Your task to perform on an android device: Open the map Image 0: 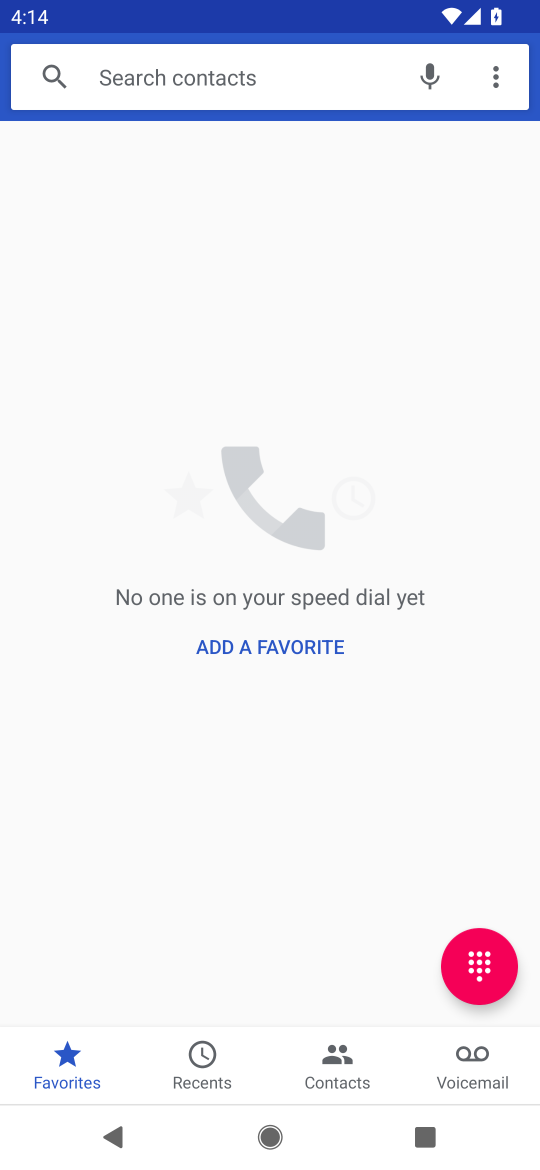
Step 0: press home button
Your task to perform on an android device: Open the map Image 1: 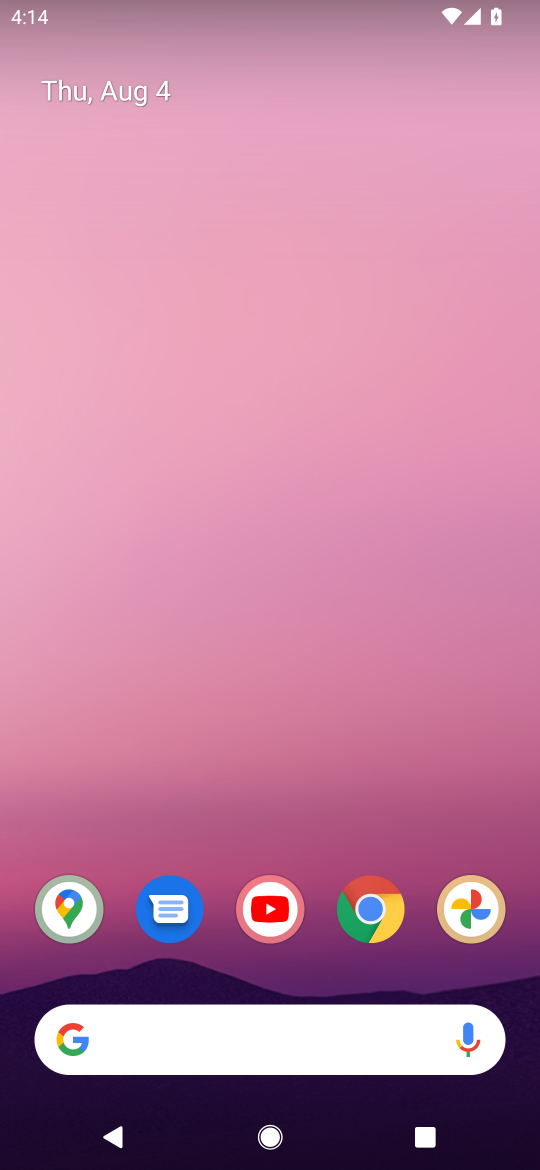
Step 1: drag from (424, 332) to (438, 37)
Your task to perform on an android device: Open the map Image 2: 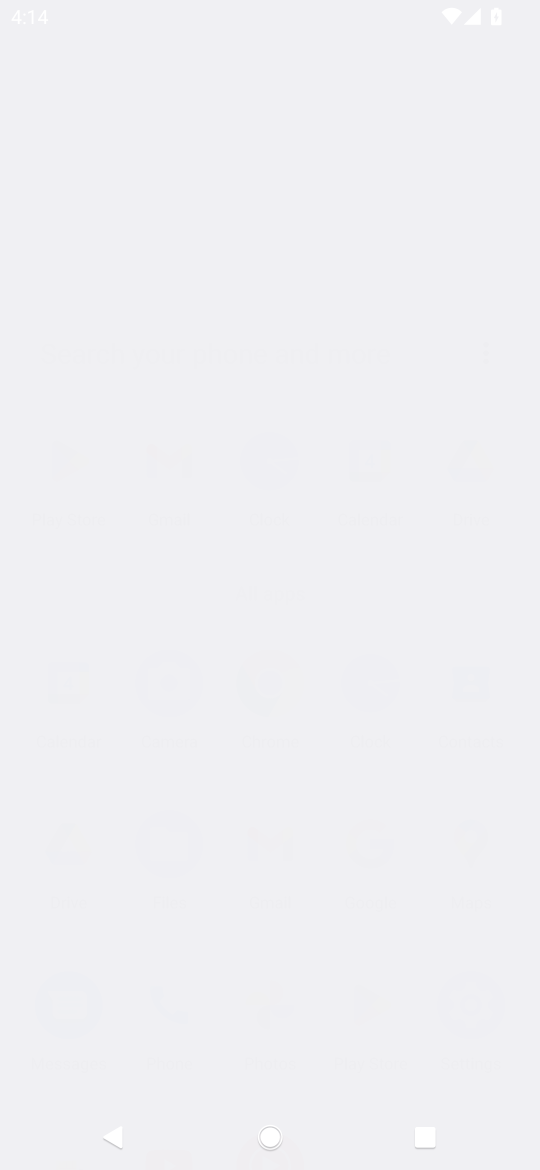
Step 2: press home button
Your task to perform on an android device: Open the map Image 3: 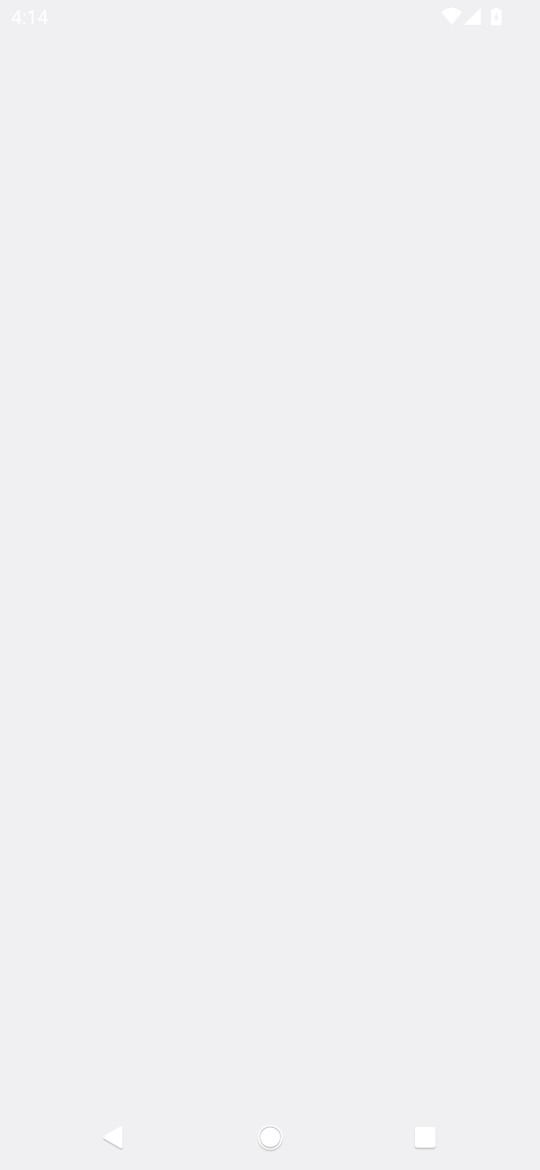
Step 3: drag from (438, 37) to (501, 645)
Your task to perform on an android device: Open the map Image 4: 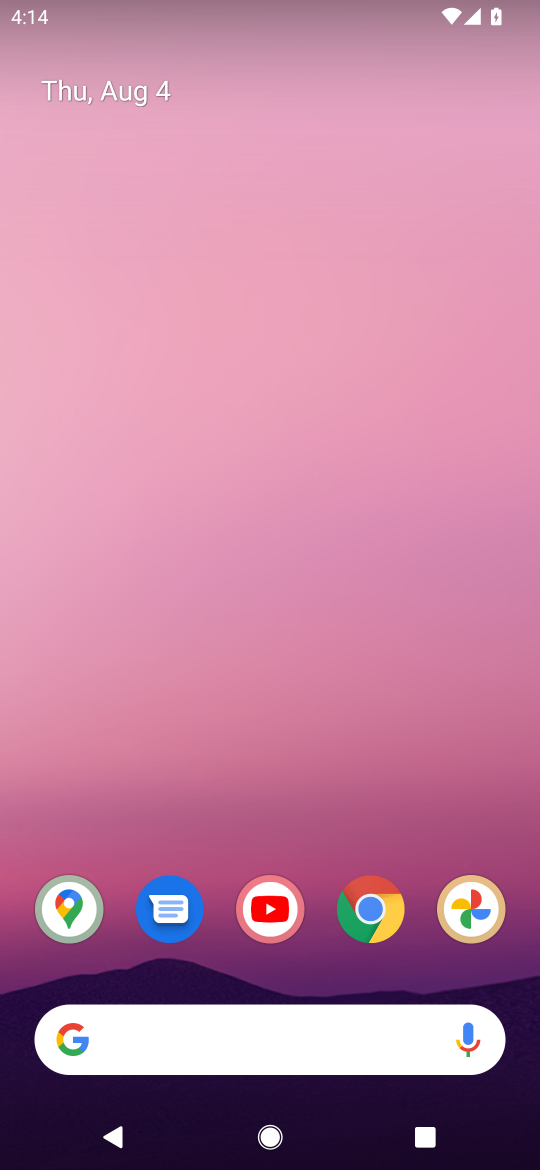
Step 4: drag from (267, 795) to (390, 17)
Your task to perform on an android device: Open the map Image 5: 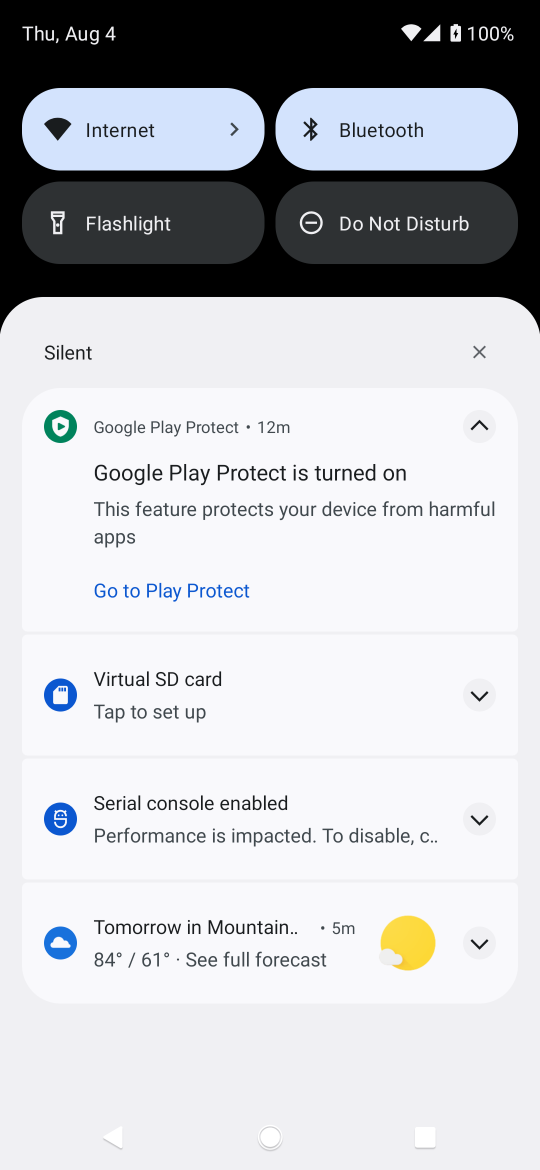
Step 5: press home button
Your task to perform on an android device: Open the map Image 6: 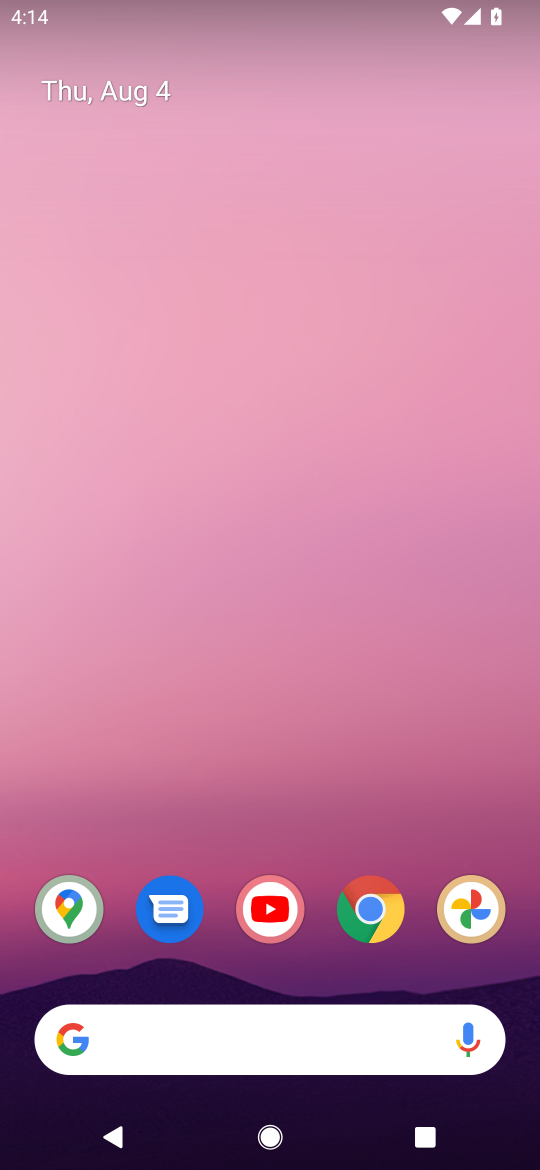
Step 6: drag from (199, 826) to (316, 3)
Your task to perform on an android device: Open the map Image 7: 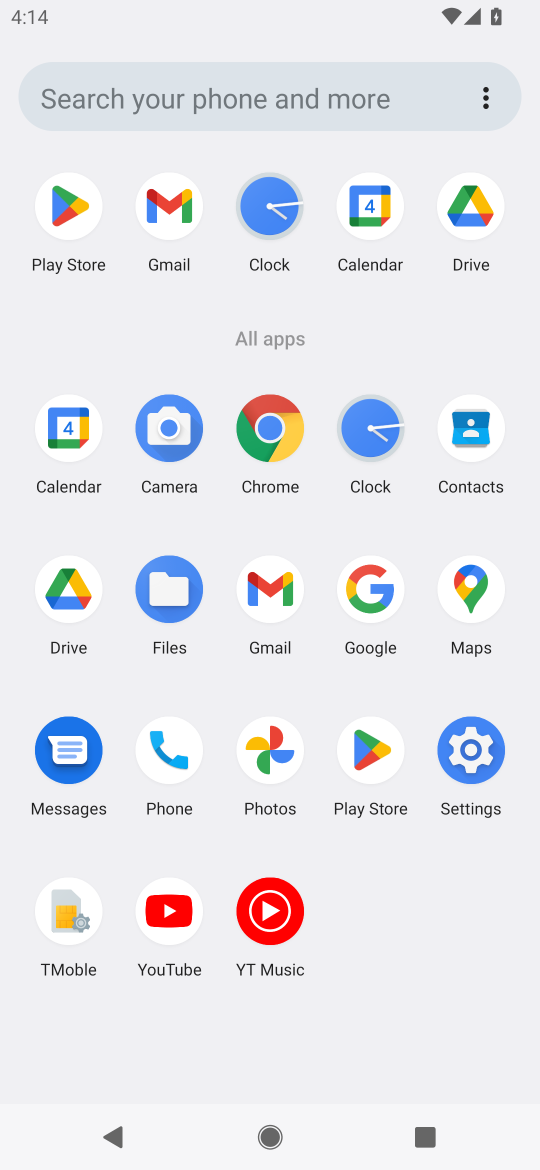
Step 7: click (457, 564)
Your task to perform on an android device: Open the map Image 8: 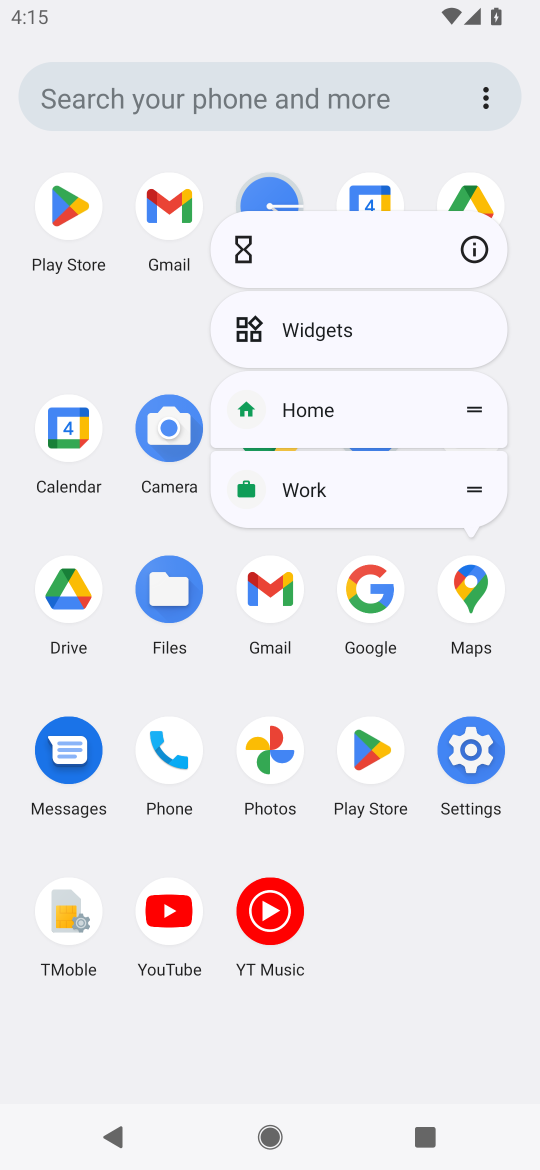
Step 8: click (469, 590)
Your task to perform on an android device: Open the map Image 9: 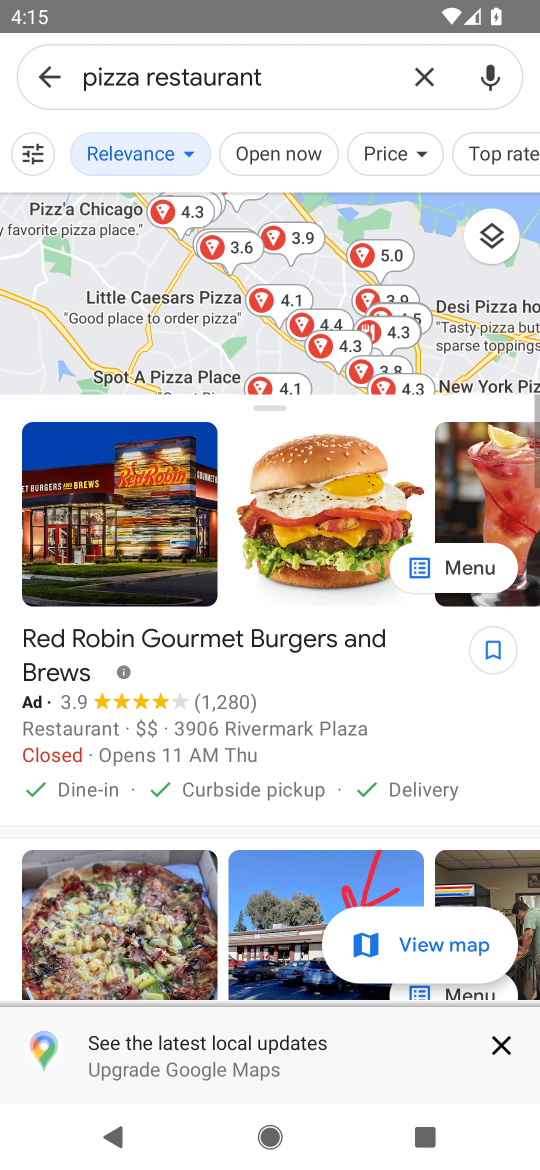
Step 9: click (425, 75)
Your task to perform on an android device: Open the map Image 10: 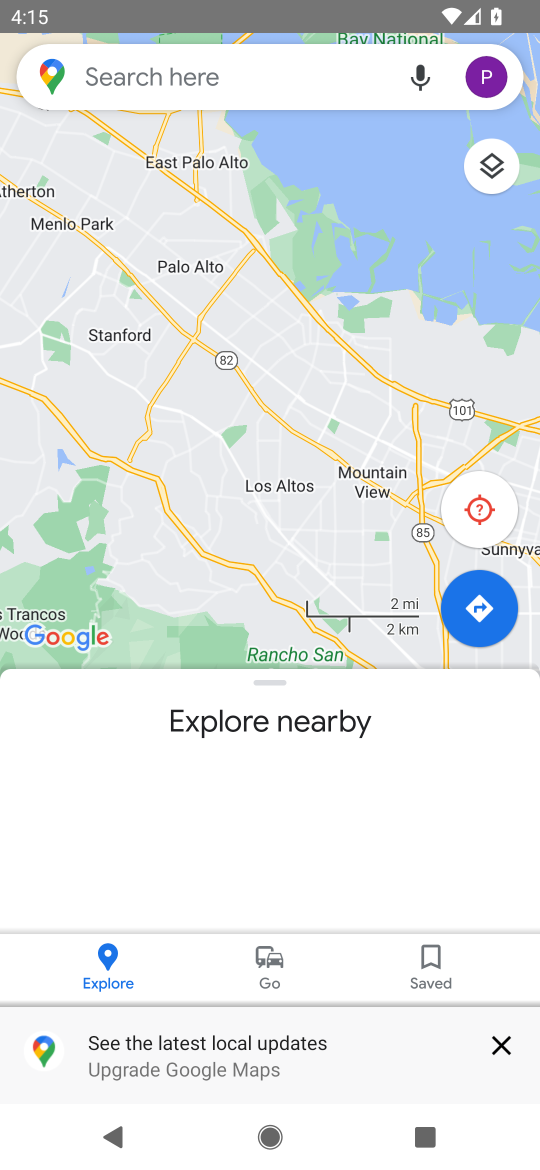
Step 10: task complete